Your task to perform on an android device: find photos in the google photos app Image 0: 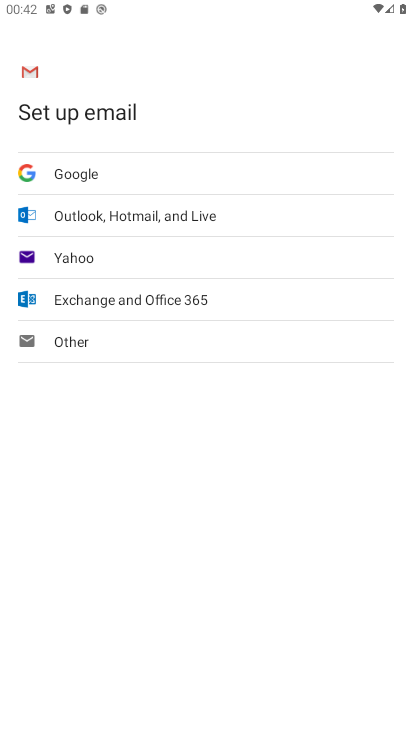
Step 0: press home button
Your task to perform on an android device: find photos in the google photos app Image 1: 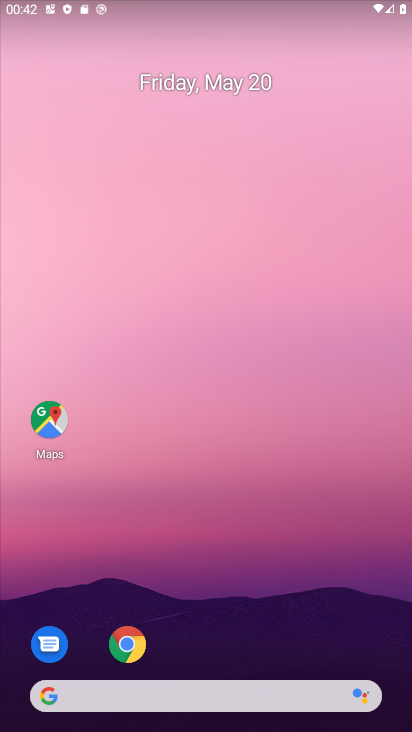
Step 1: drag from (282, 628) to (267, 16)
Your task to perform on an android device: find photos in the google photos app Image 2: 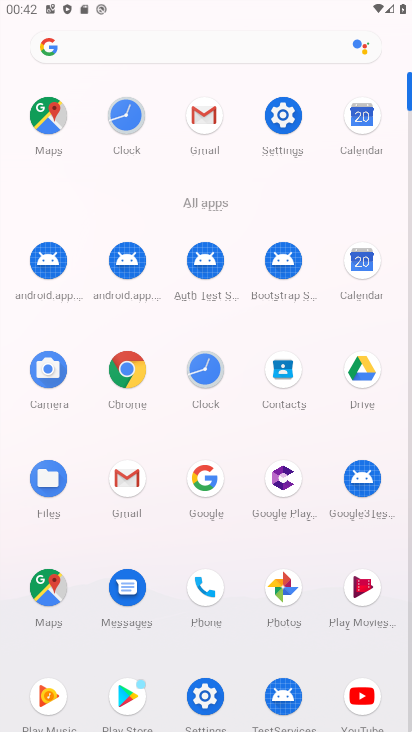
Step 2: click (283, 600)
Your task to perform on an android device: find photos in the google photos app Image 3: 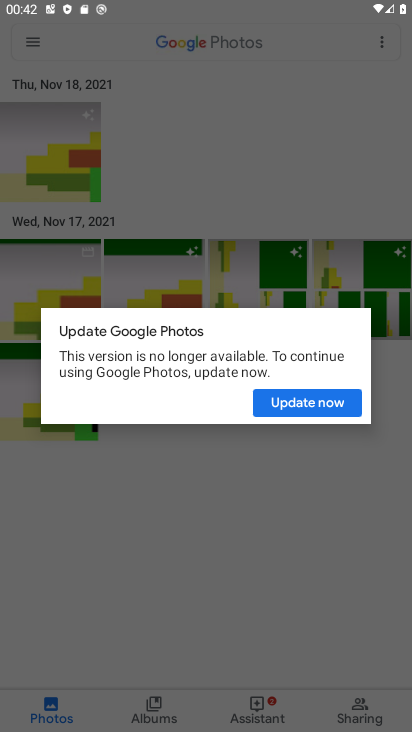
Step 3: click (304, 410)
Your task to perform on an android device: find photos in the google photos app Image 4: 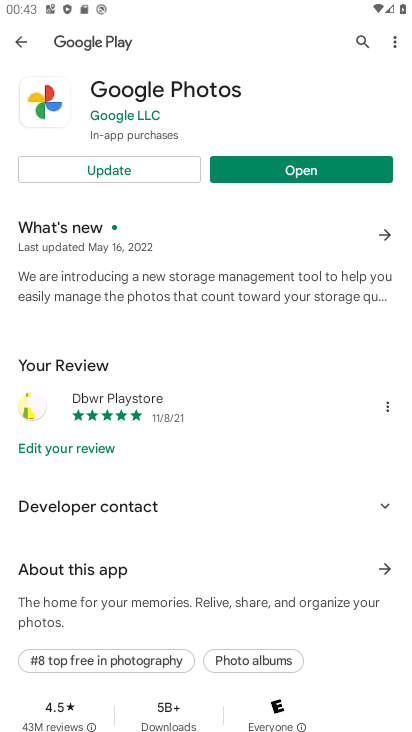
Step 4: click (276, 181)
Your task to perform on an android device: find photos in the google photos app Image 5: 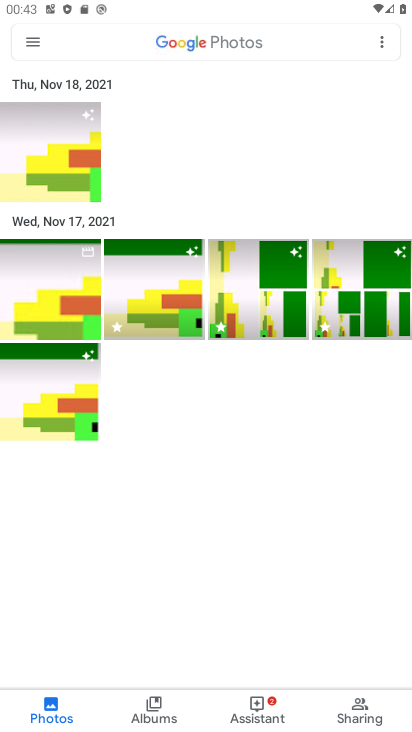
Step 5: click (30, 718)
Your task to perform on an android device: find photos in the google photos app Image 6: 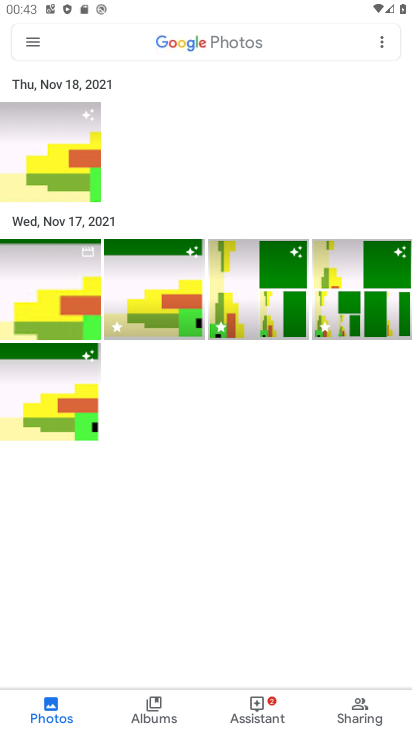
Step 6: task complete